Your task to perform on an android device: turn off data saver in the chrome app Image 0: 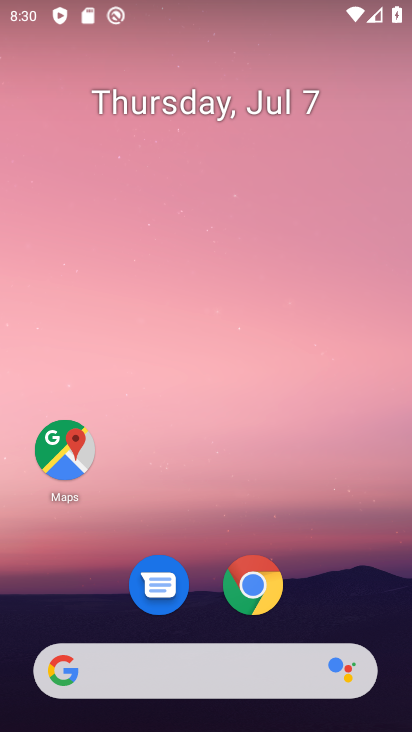
Step 0: click (270, 581)
Your task to perform on an android device: turn off data saver in the chrome app Image 1: 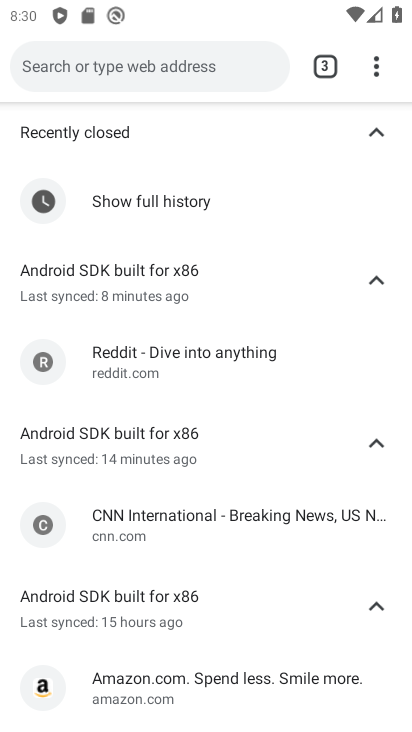
Step 1: click (371, 62)
Your task to perform on an android device: turn off data saver in the chrome app Image 2: 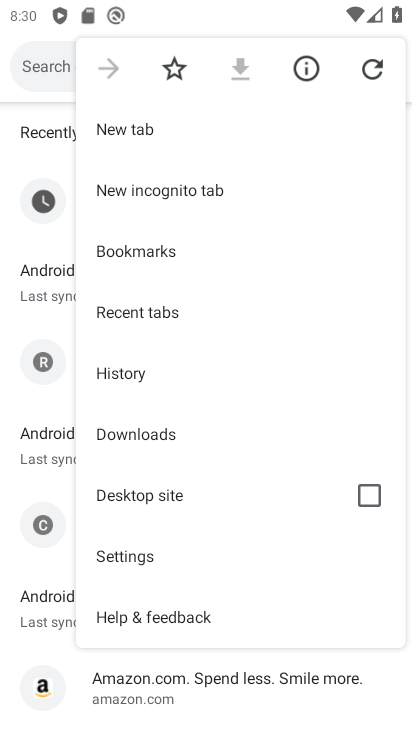
Step 2: click (165, 561)
Your task to perform on an android device: turn off data saver in the chrome app Image 3: 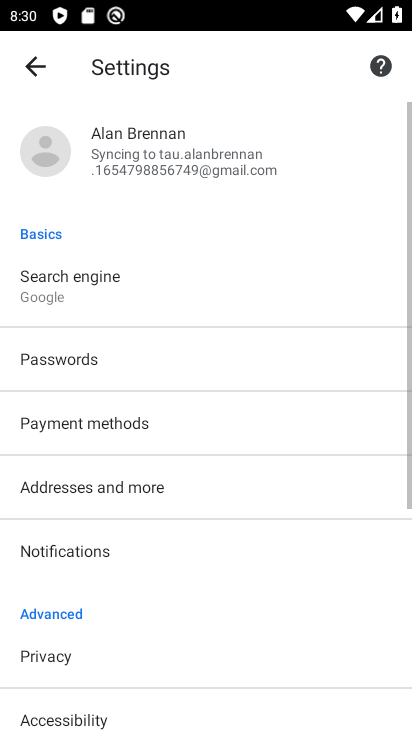
Step 3: drag from (206, 622) to (217, 409)
Your task to perform on an android device: turn off data saver in the chrome app Image 4: 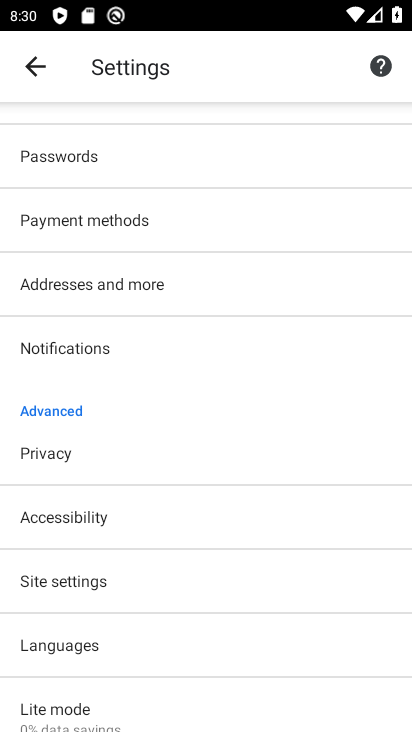
Step 4: click (144, 711)
Your task to perform on an android device: turn off data saver in the chrome app Image 5: 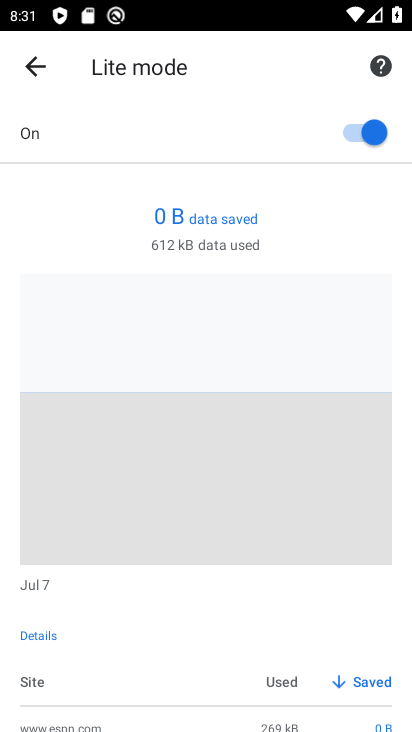
Step 5: click (361, 124)
Your task to perform on an android device: turn off data saver in the chrome app Image 6: 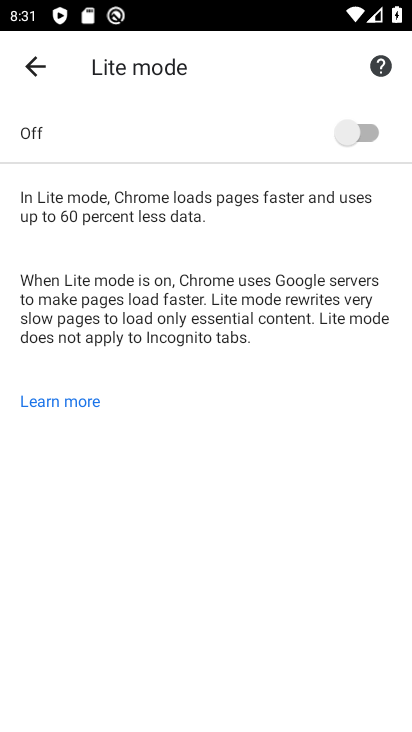
Step 6: task complete